Your task to perform on an android device: Open Chrome and go to settings Image 0: 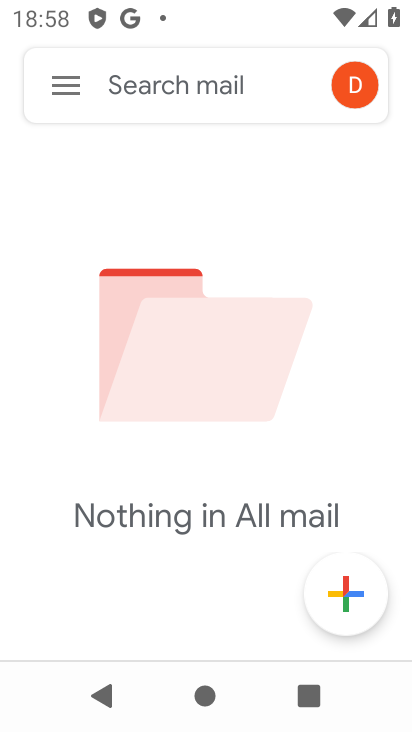
Step 0: press home button
Your task to perform on an android device: Open Chrome and go to settings Image 1: 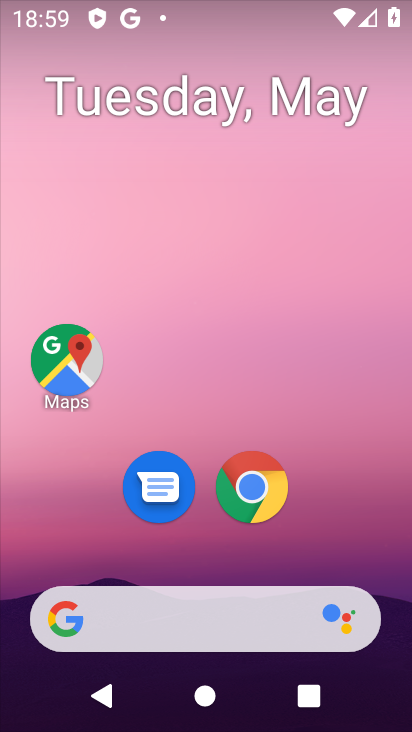
Step 1: drag from (341, 520) to (239, 57)
Your task to perform on an android device: Open Chrome and go to settings Image 2: 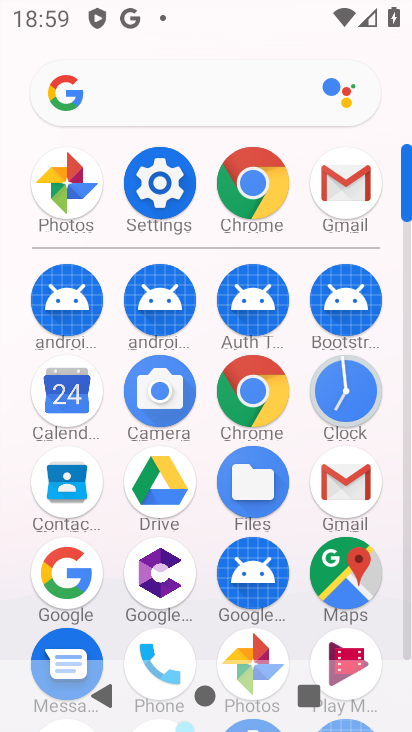
Step 2: click (246, 187)
Your task to perform on an android device: Open Chrome and go to settings Image 3: 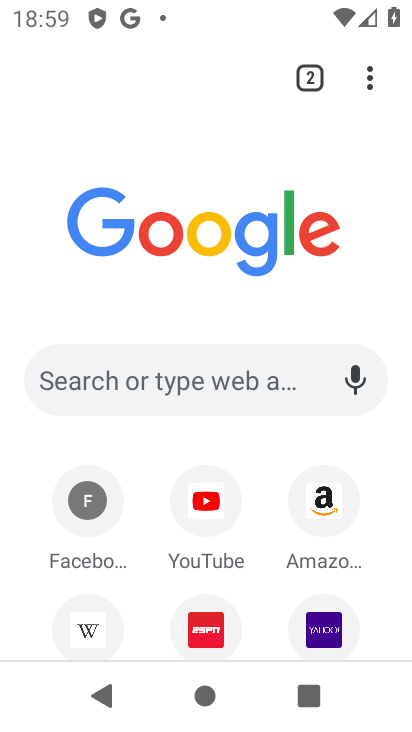
Step 3: click (366, 68)
Your task to perform on an android device: Open Chrome and go to settings Image 4: 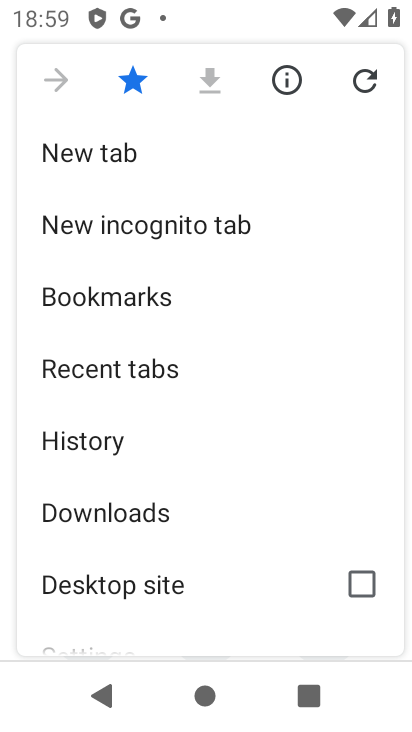
Step 4: drag from (211, 536) to (169, 259)
Your task to perform on an android device: Open Chrome and go to settings Image 5: 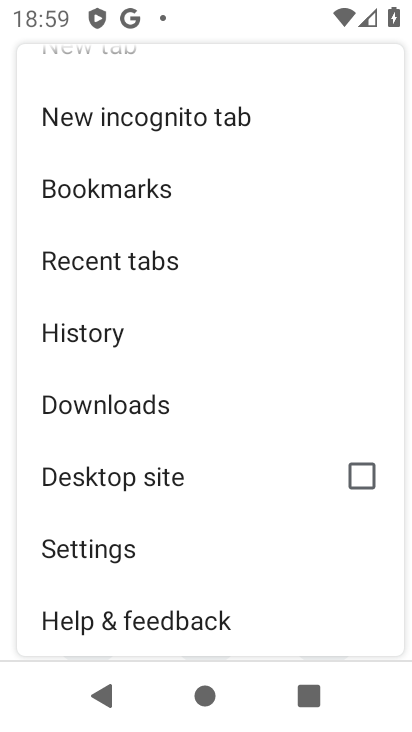
Step 5: click (92, 548)
Your task to perform on an android device: Open Chrome and go to settings Image 6: 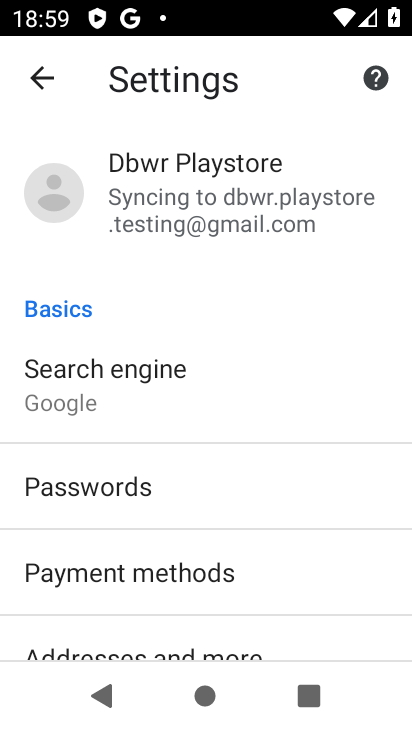
Step 6: task complete